Your task to perform on an android device: Open the phone app and click the voicemail tab. Image 0: 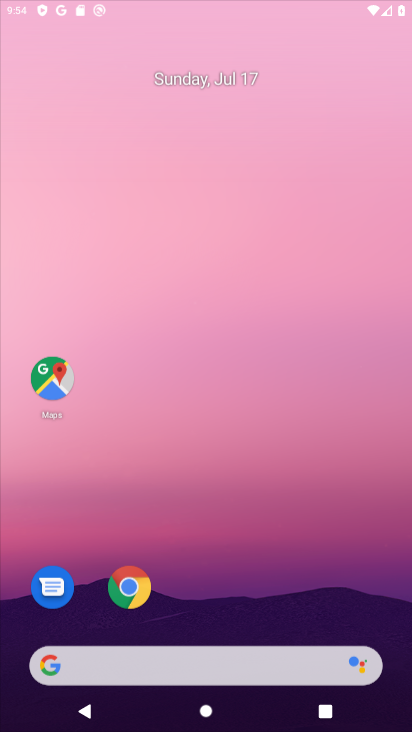
Step 0: drag from (202, 631) to (209, 78)
Your task to perform on an android device: Open the phone app and click the voicemail tab. Image 1: 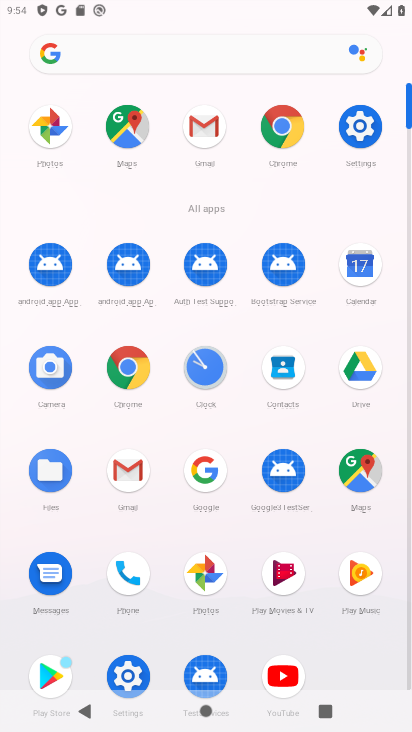
Step 1: click (124, 578)
Your task to perform on an android device: Open the phone app and click the voicemail tab. Image 2: 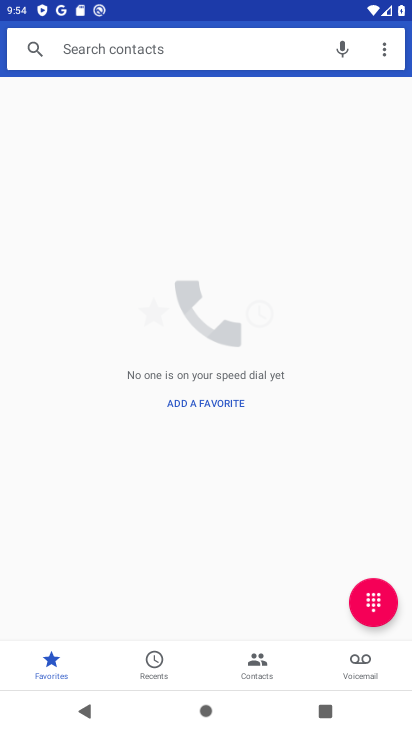
Step 2: click (354, 659)
Your task to perform on an android device: Open the phone app and click the voicemail tab. Image 3: 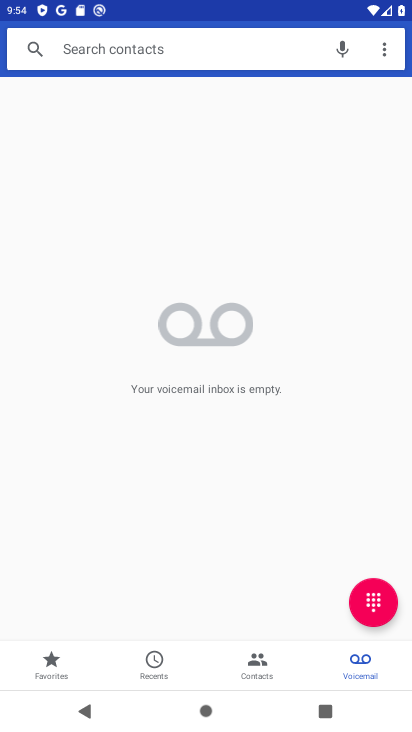
Step 3: task complete